Your task to perform on an android device: Turn on the flashlight Image 0: 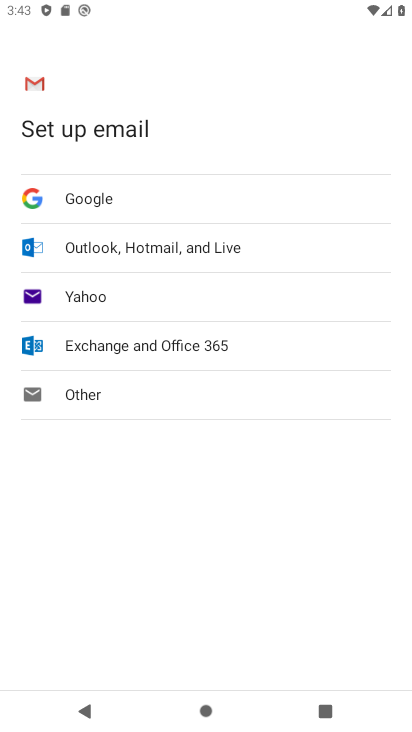
Step 0: press home button
Your task to perform on an android device: Turn on the flashlight Image 1: 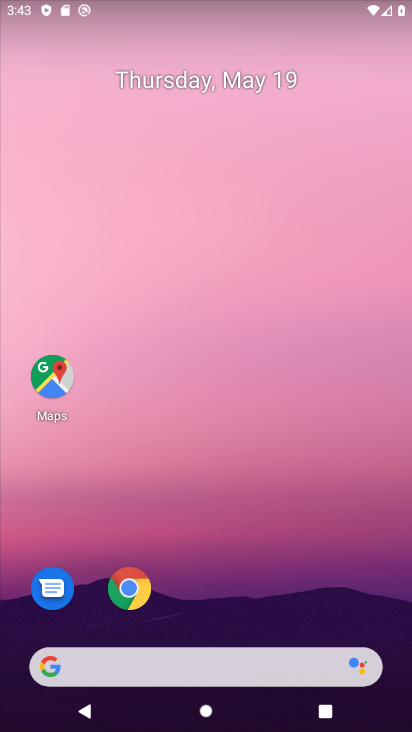
Step 1: drag from (232, 578) to (270, 169)
Your task to perform on an android device: Turn on the flashlight Image 2: 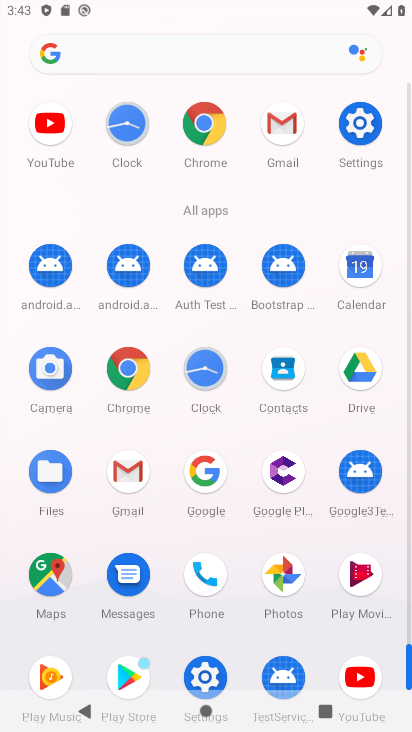
Step 2: click (365, 128)
Your task to perform on an android device: Turn on the flashlight Image 3: 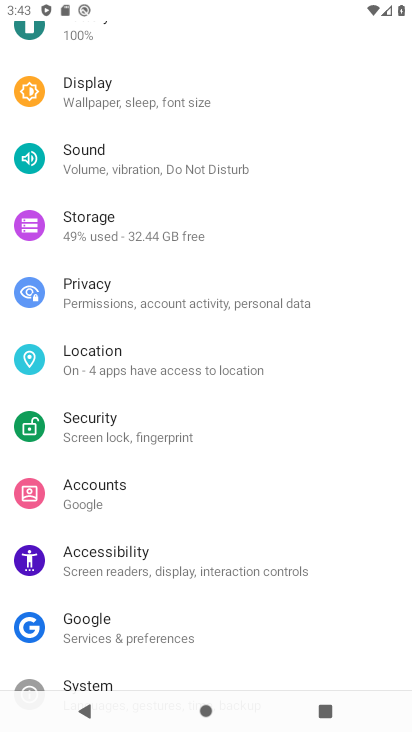
Step 3: drag from (219, 128) to (167, 462)
Your task to perform on an android device: Turn on the flashlight Image 4: 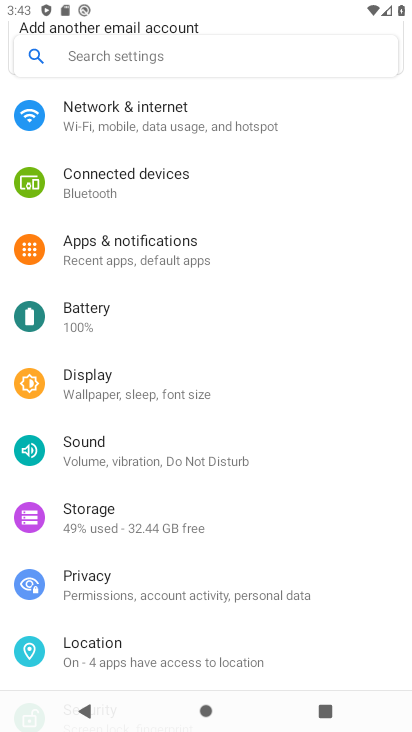
Step 4: click (178, 55)
Your task to perform on an android device: Turn on the flashlight Image 5: 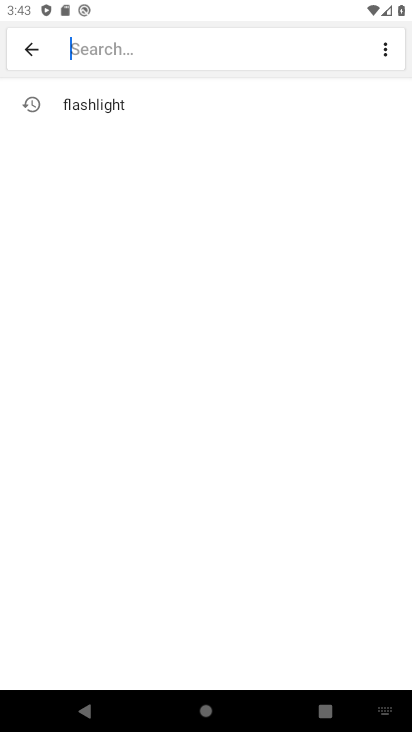
Step 5: type "flashlight"
Your task to perform on an android device: Turn on the flashlight Image 6: 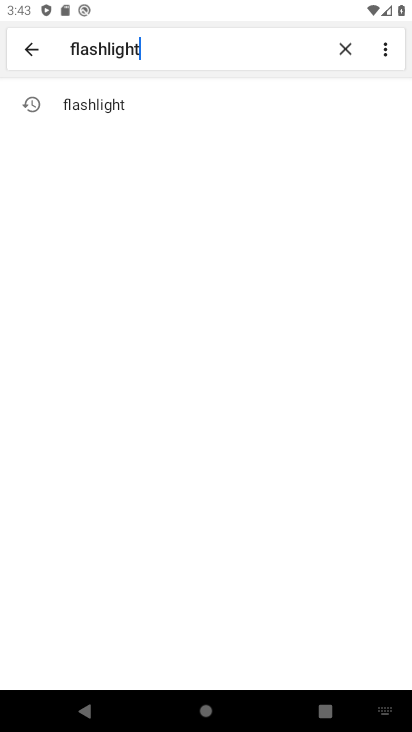
Step 6: click (139, 100)
Your task to perform on an android device: Turn on the flashlight Image 7: 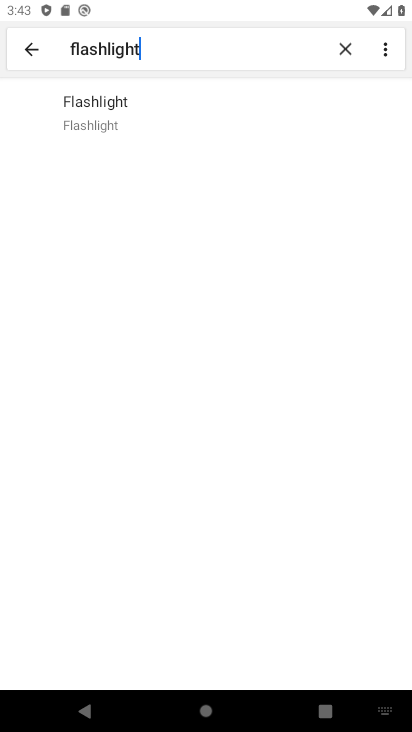
Step 7: click (131, 114)
Your task to perform on an android device: Turn on the flashlight Image 8: 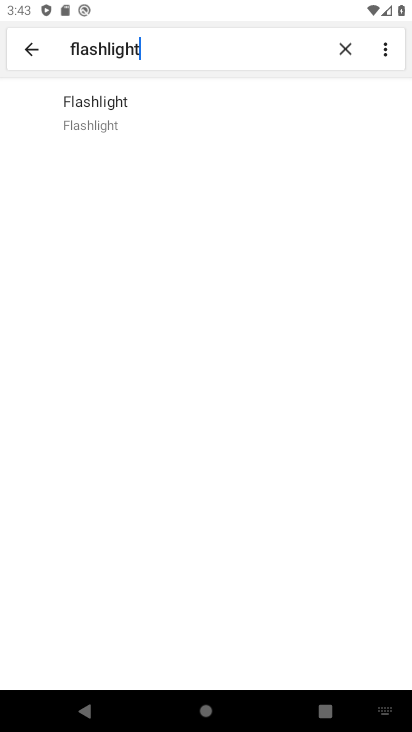
Step 8: task complete